Your task to perform on an android device: delete a single message in the gmail app Image 0: 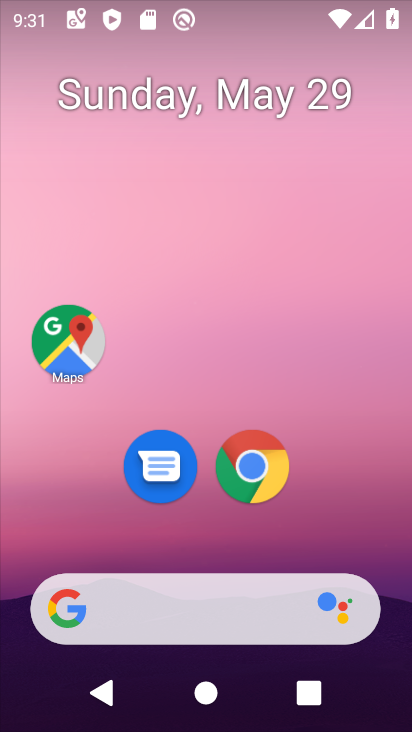
Step 0: drag from (192, 550) to (200, 210)
Your task to perform on an android device: delete a single message in the gmail app Image 1: 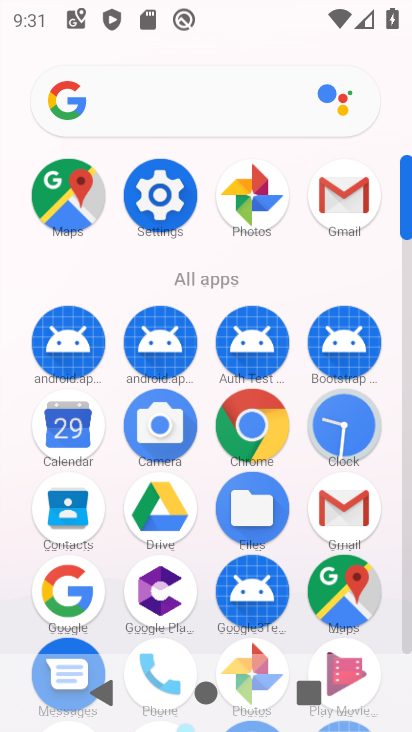
Step 1: click (349, 205)
Your task to perform on an android device: delete a single message in the gmail app Image 2: 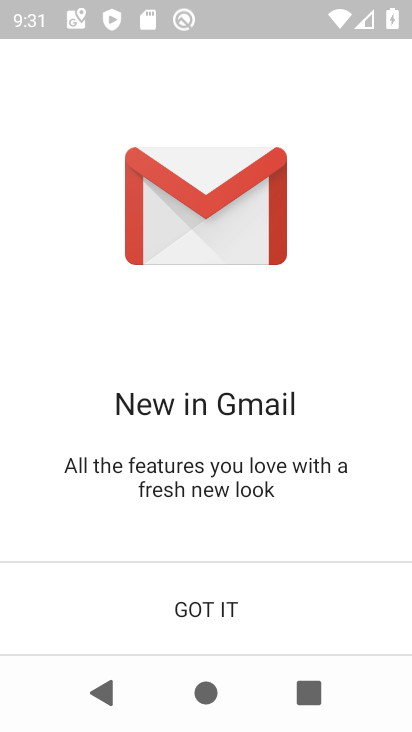
Step 2: click (213, 581)
Your task to perform on an android device: delete a single message in the gmail app Image 3: 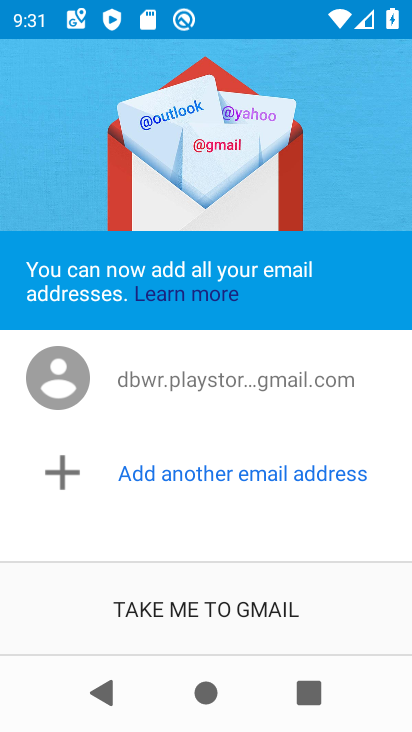
Step 3: click (213, 581)
Your task to perform on an android device: delete a single message in the gmail app Image 4: 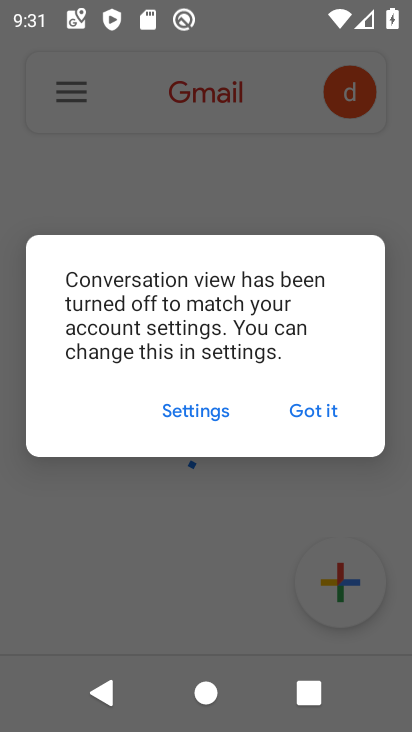
Step 4: click (293, 411)
Your task to perform on an android device: delete a single message in the gmail app Image 5: 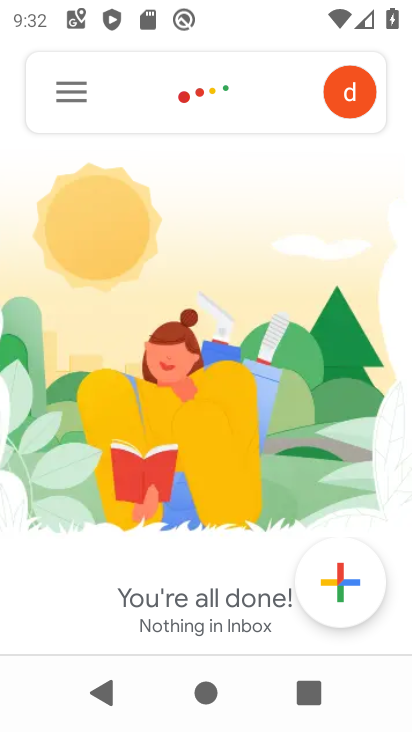
Step 5: click (75, 96)
Your task to perform on an android device: delete a single message in the gmail app Image 6: 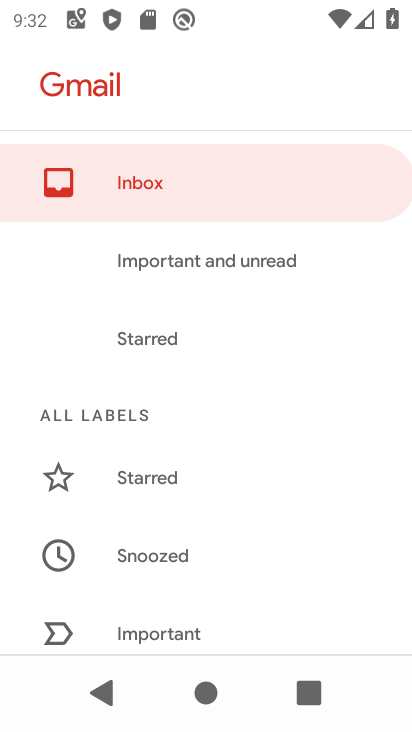
Step 6: drag from (193, 495) to (212, 466)
Your task to perform on an android device: delete a single message in the gmail app Image 7: 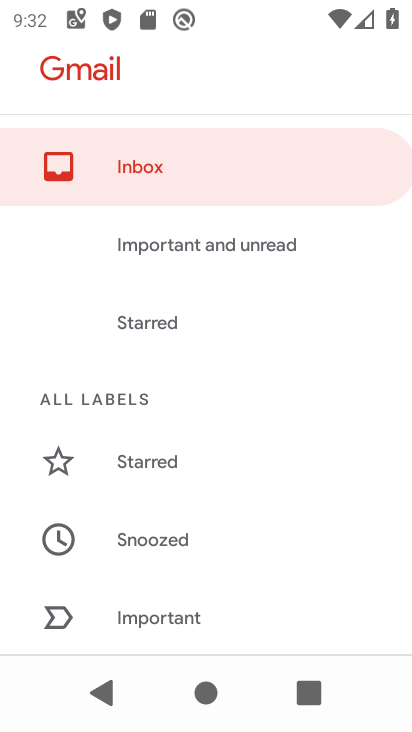
Step 7: click (137, 173)
Your task to perform on an android device: delete a single message in the gmail app Image 8: 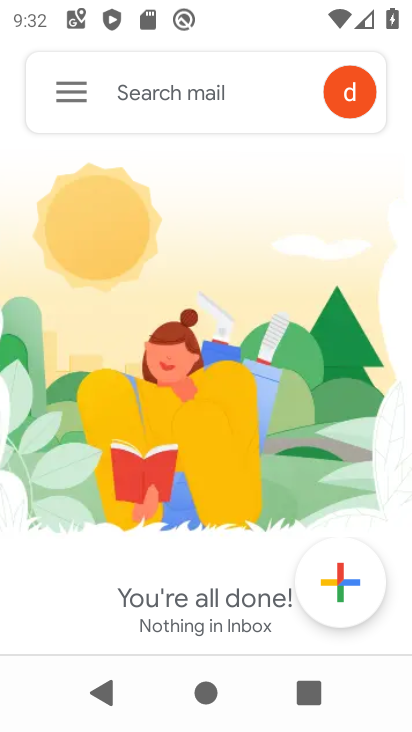
Step 8: task complete